Your task to perform on an android device: Open Chrome and go to the settings page Image 0: 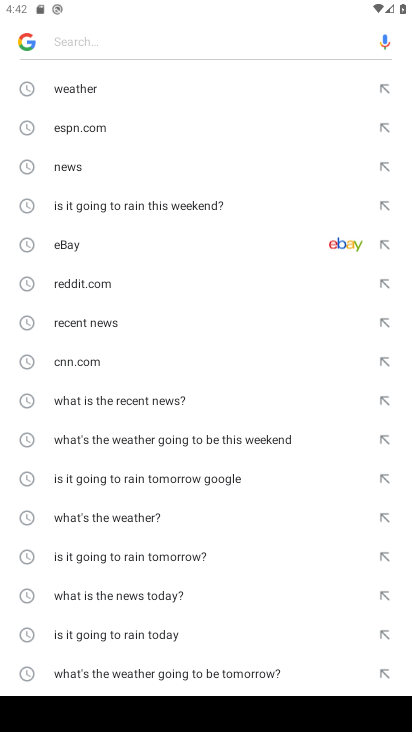
Step 0: press home button
Your task to perform on an android device: Open Chrome and go to the settings page Image 1: 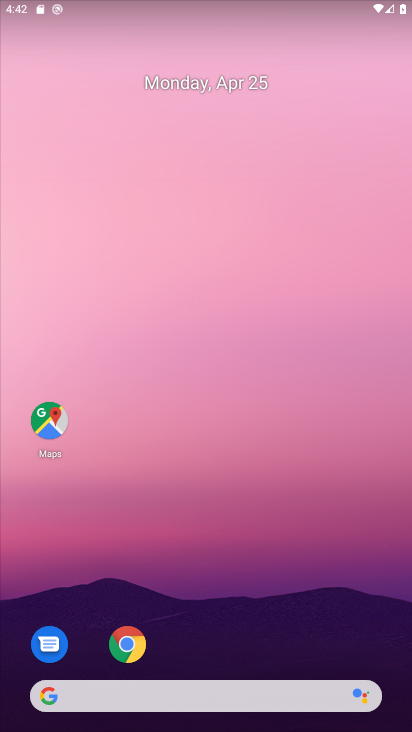
Step 1: click (131, 644)
Your task to perform on an android device: Open Chrome and go to the settings page Image 2: 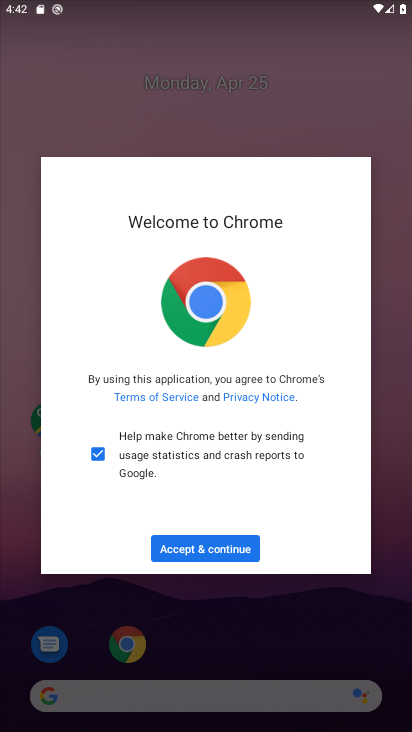
Step 2: click (191, 540)
Your task to perform on an android device: Open Chrome and go to the settings page Image 3: 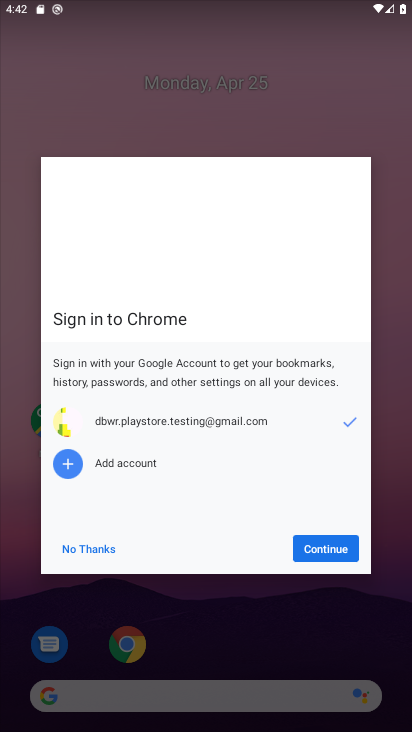
Step 3: click (191, 540)
Your task to perform on an android device: Open Chrome and go to the settings page Image 4: 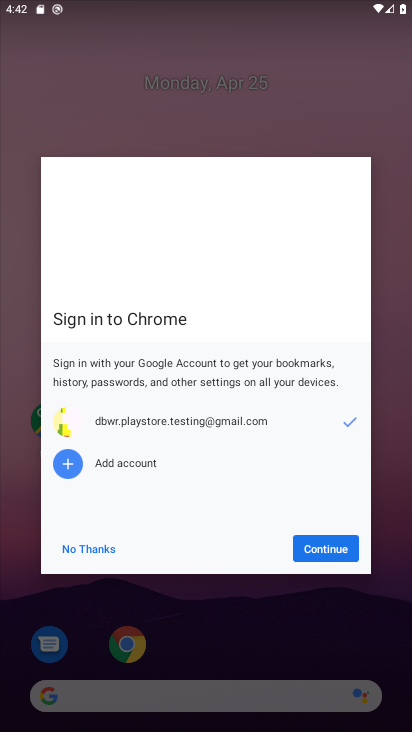
Step 4: click (320, 540)
Your task to perform on an android device: Open Chrome and go to the settings page Image 5: 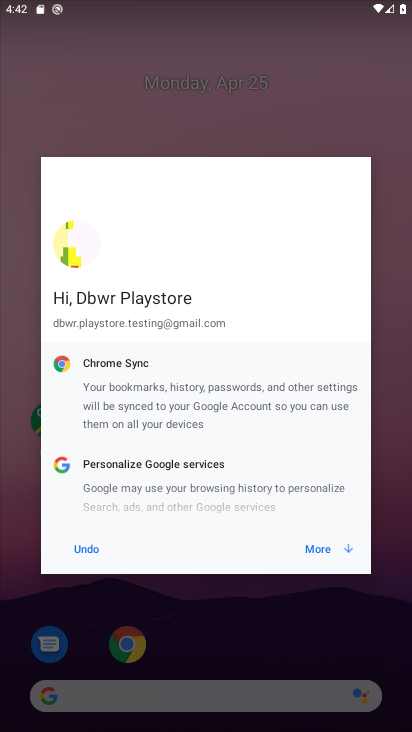
Step 5: click (320, 540)
Your task to perform on an android device: Open Chrome and go to the settings page Image 6: 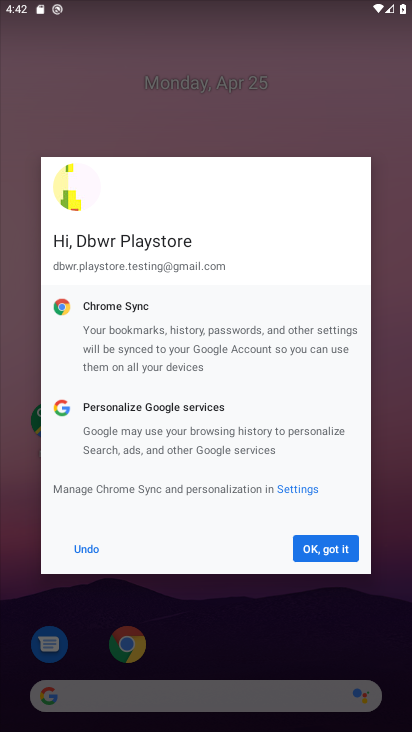
Step 6: click (320, 540)
Your task to perform on an android device: Open Chrome and go to the settings page Image 7: 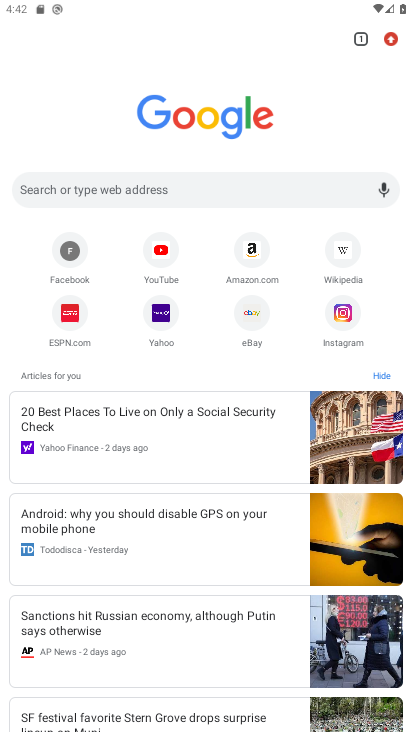
Step 7: click (386, 37)
Your task to perform on an android device: Open Chrome and go to the settings page Image 8: 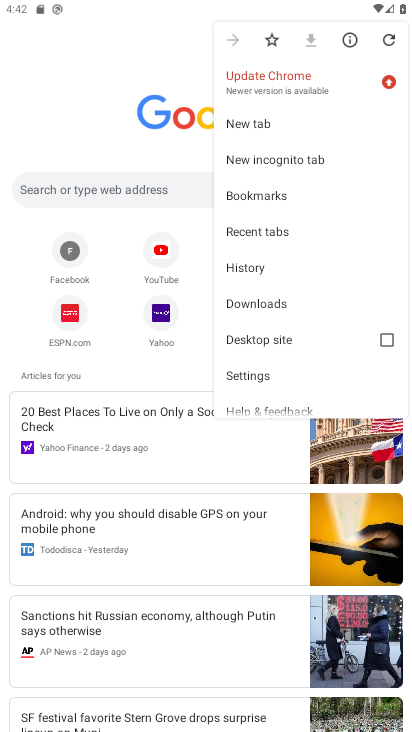
Step 8: click (249, 366)
Your task to perform on an android device: Open Chrome and go to the settings page Image 9: 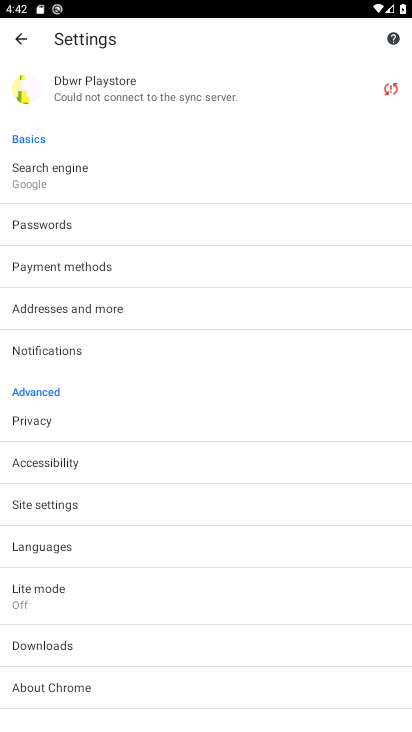
Step 9: task complete